Your task to perform on an android device: open sync settings in chrome Image 0: 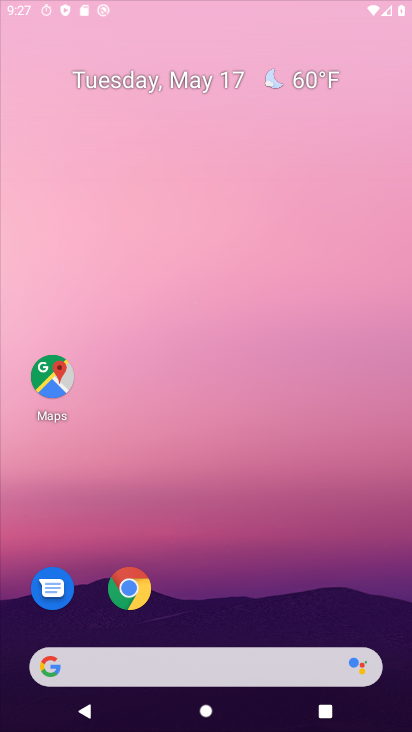
Step 0: drag from (287, 701) to (218, 217)
Your task to perform on an android device: open sync settings in chrome Image 1: 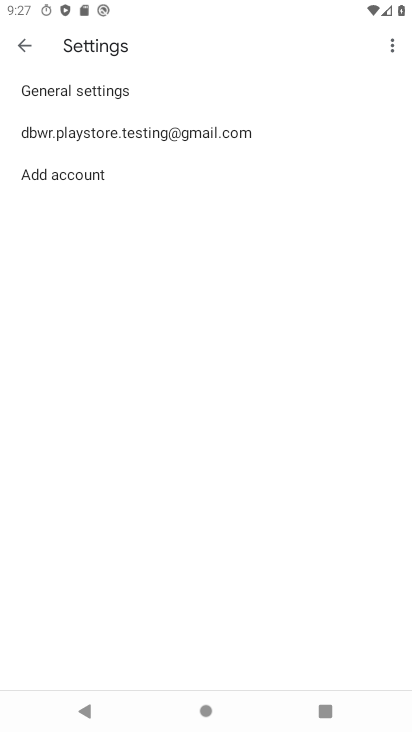
Step 1: click (17, 41)
Your task to perform on an android device: open sync settings in chrome Image 2: 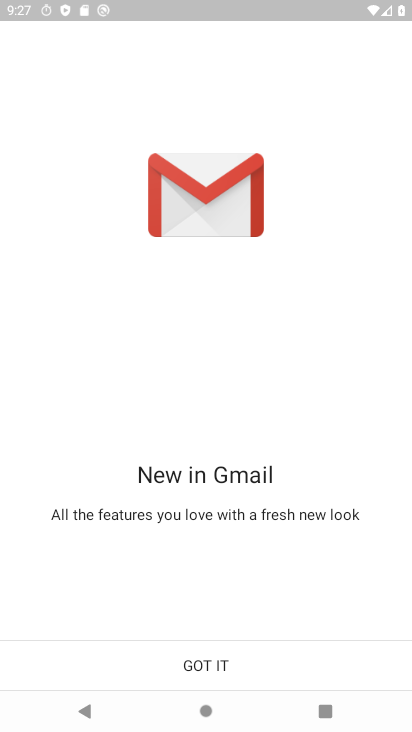
Step 2: press home button
Your task to perform on an android device: open sync settings in chrome Image 3: 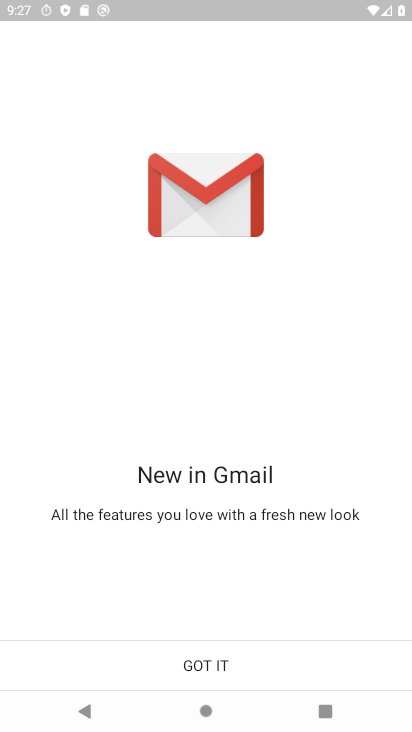
Step 3: press home button
Your task to perform on an android device: open sync settings in chrome Image 4: 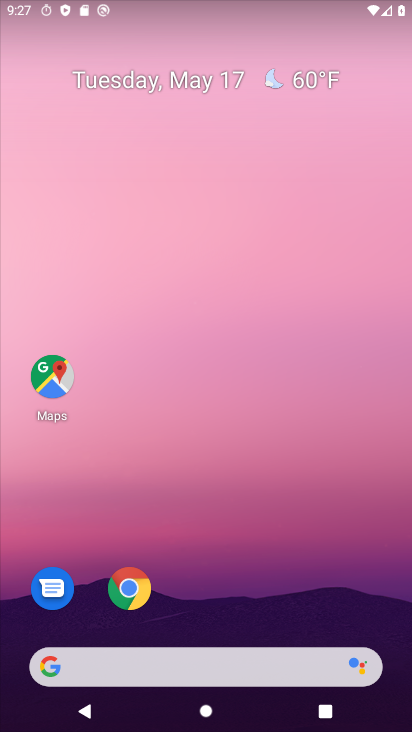
Step 4: drag from (258, 656) to (213, 115)
Your task to perform on an android device: open sync settings in chrome Image 5: 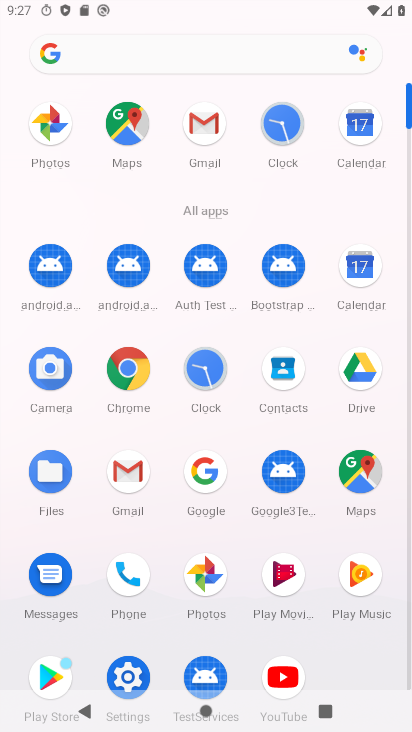
Step 5: click (130, 367)
Your task to perform on an android device: open sync settings in chrome Image 6: 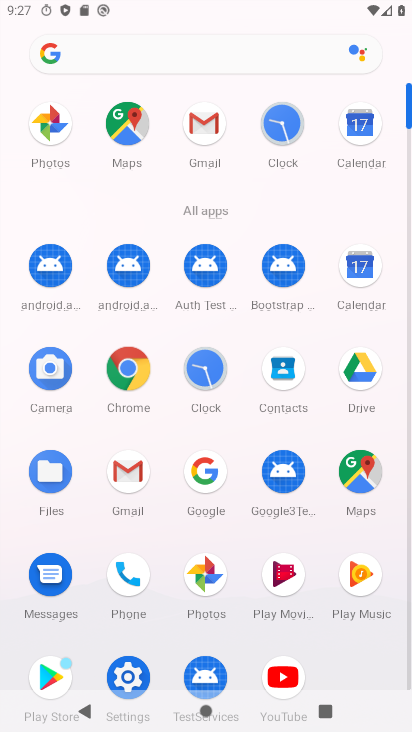
Step 6: click (131, 363)
Your task to perform on an android device: open sync settings in chrome Image 7: 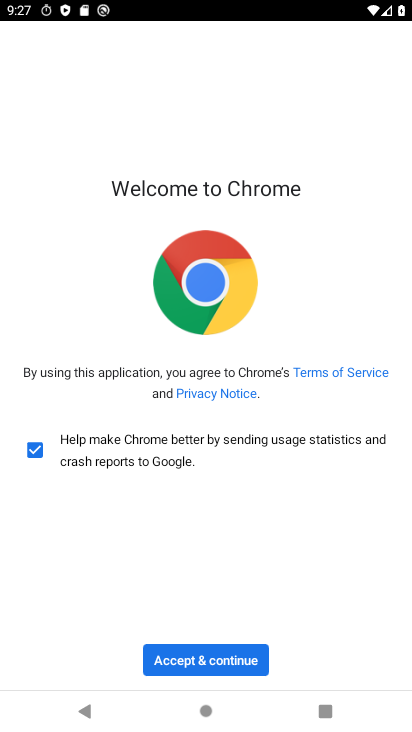
Step 7: click (193, 660)
Your task to perform on an android device: open sync settings in chrome Image 8: 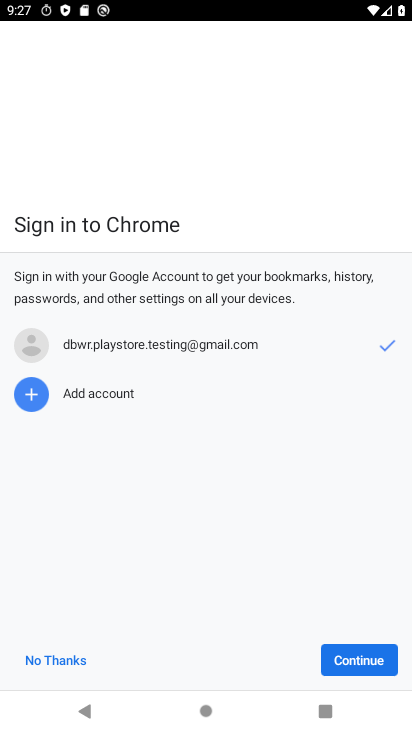
Step 8: click (374, 655)
Your task to perform on an android device: open sync settings in chrome Image 9: 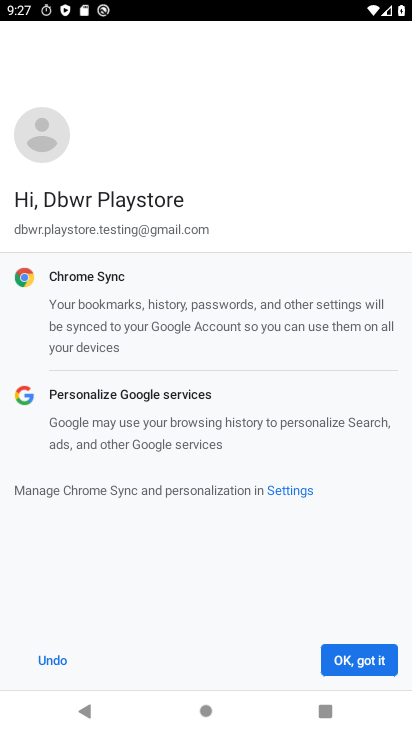
Step 9: click (363, 652)
Your task to perform on an android device: open sync settings in chrome Image 10: 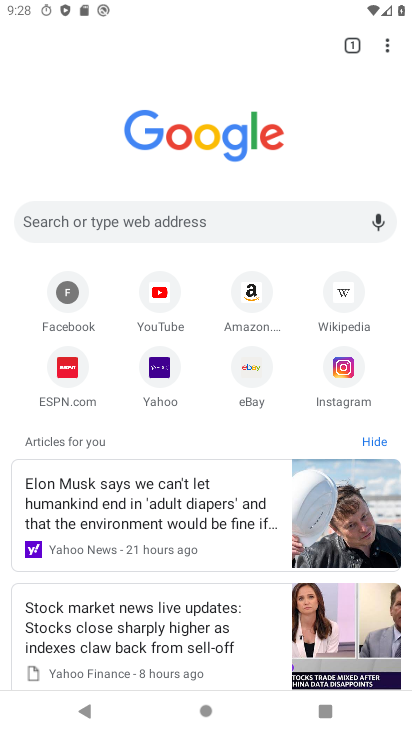
Step 10: drag from (384, 56) to (313, 426)
Your task to perform on an android device: open sync settings in chrome Image 11: 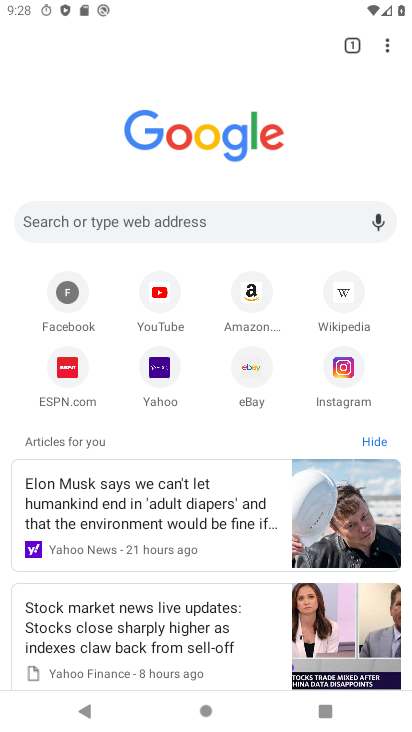
Step 11: click (392, 45)
Your task to perform on an android device: open sync settings in chrome Image 12: 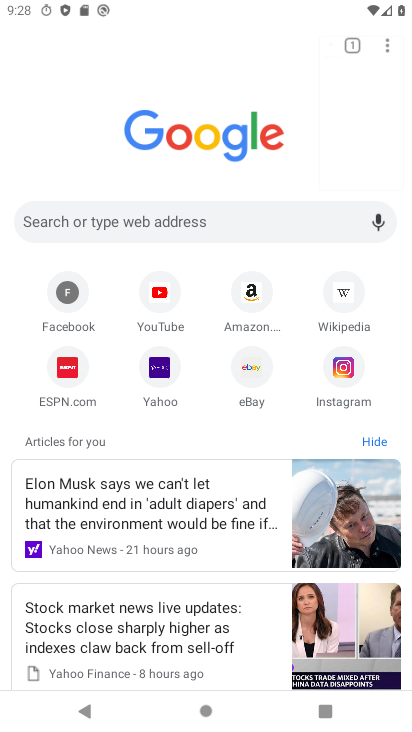
Step 12: click (396, 42)
Your task to perform on an android device: open sync settings in chrome Image 13: 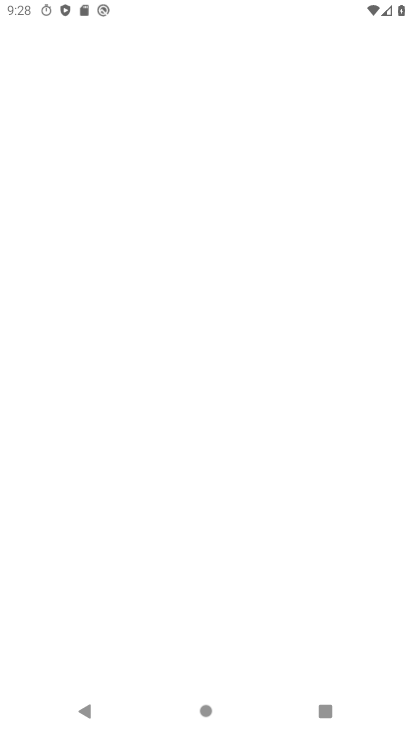
Step 13: drag from (381, 44) to (19, 50)
Your task to perform on an android device: open sync settings in chrome Image 14: 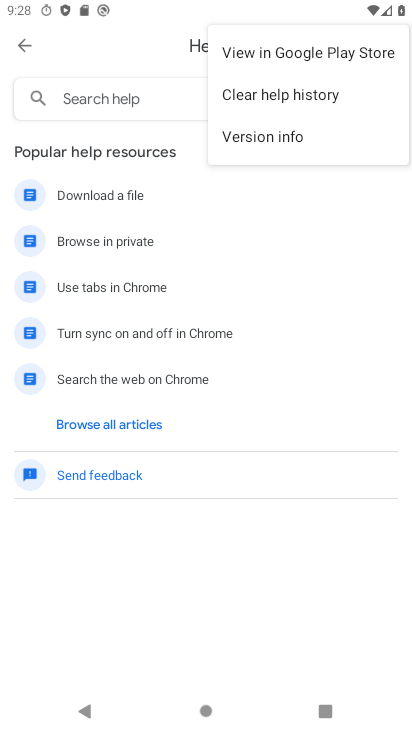
Step 14: click (23, 46)
Your task to perform on an android device: open sync settings in chrome Image 15: 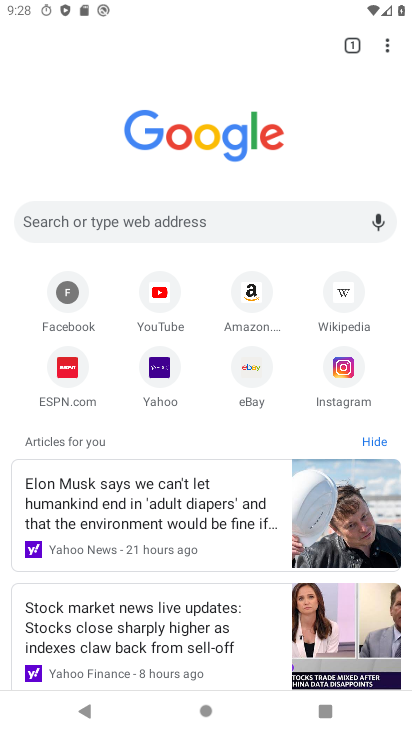
Step 15: drag from (390, 46) to (225, 382)
Your task to perform on an android device: open sync settings in chrome Image 16: 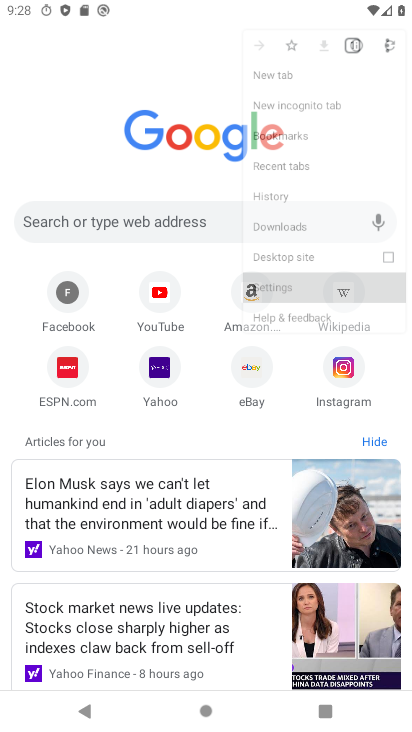
Step 16: click (225, 383)
Your task to perform on an android device: open sync settings in chrome Image 17: 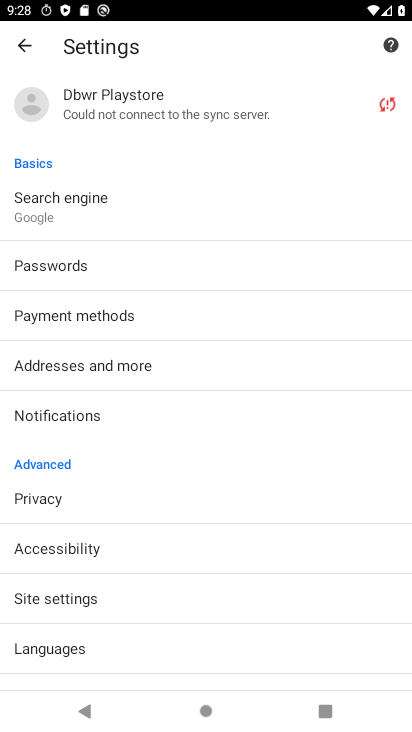
Step 17: click (51, 582)
Your task to perform on an android device: open sync settings in chrome Image 18: 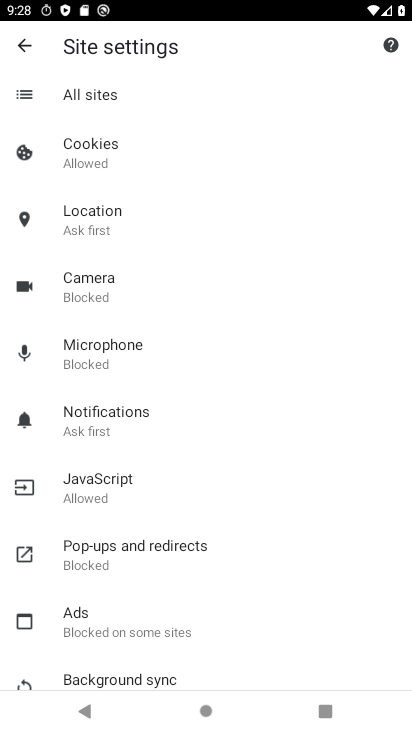
Step 18: click (86, 683)
Your task to perform on an android device: open sync settings in chrome Image 19: 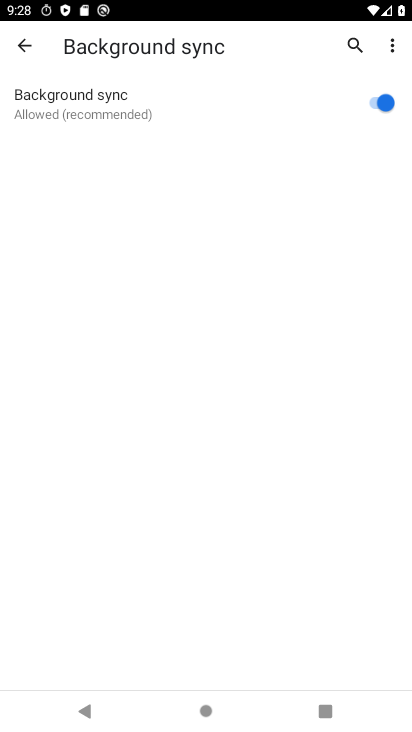
Step 19: drag from (178, 602) to (166, 152)
Your task to perform on an android device: open sync settings in chrome Image 20: 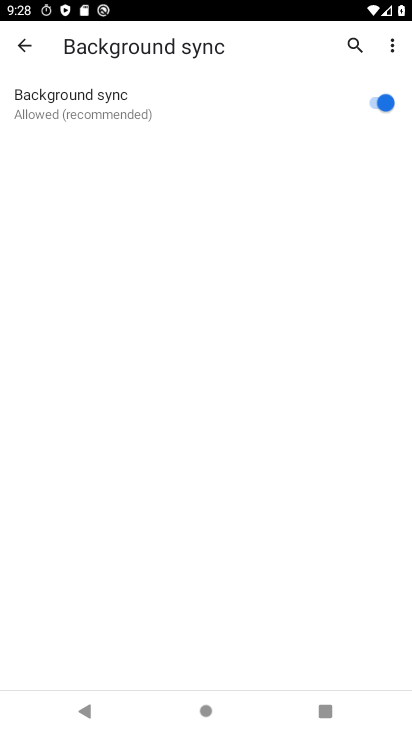
Step 20: click (107, 667)
Your task to perform on an android device: open sync settings in chrome Image 21: 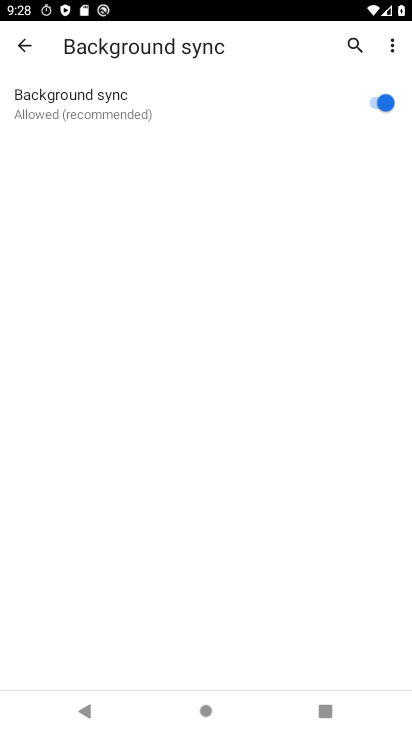
Step 21: click (127, 673)
Your task to perform on an android device: open sync settings in chrome Image 22: 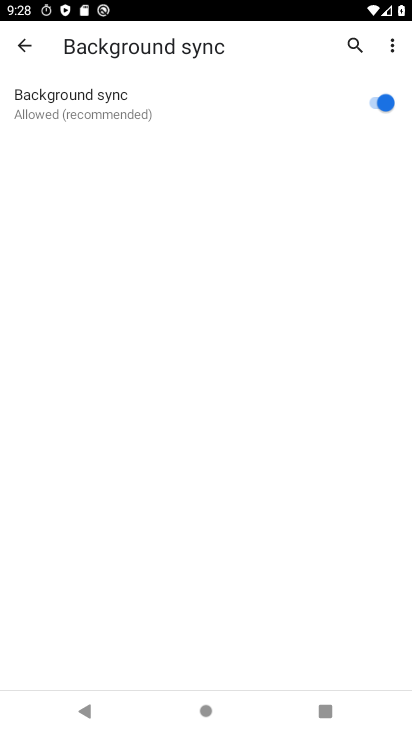
Step 22: click (135, 652)
Your task to perform on an android device: open sync settings in chrome Image 23: 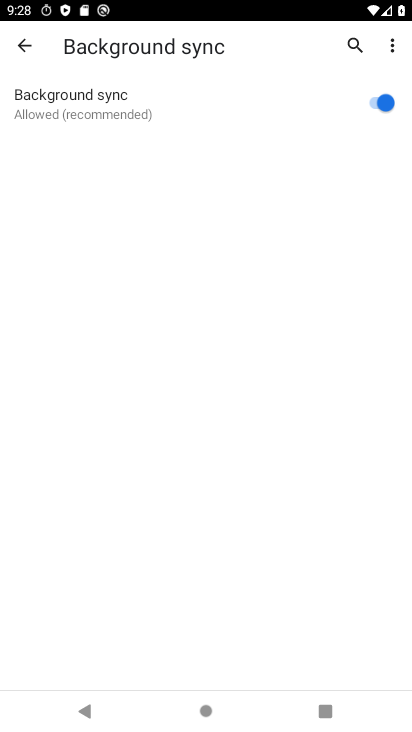
Step 23: drag from (224, 461) to (165, 112)
Your task to perform on an android device: open sync settings in chrome Image 24: 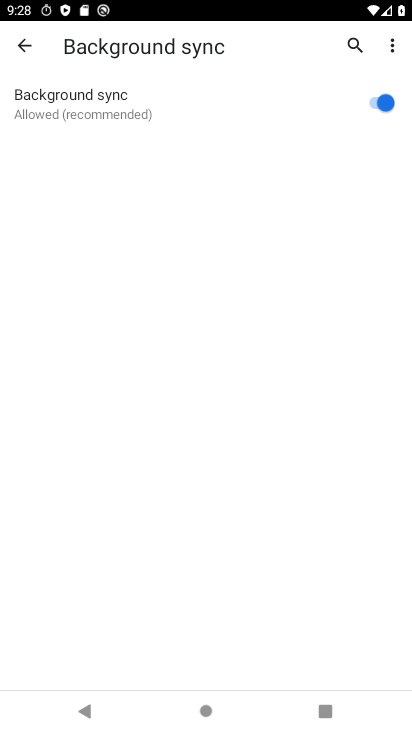
Step 24: drag from (239, 416) to (240, 127)
Your task to perform on an android device: open sync settings in chrome Image 25: 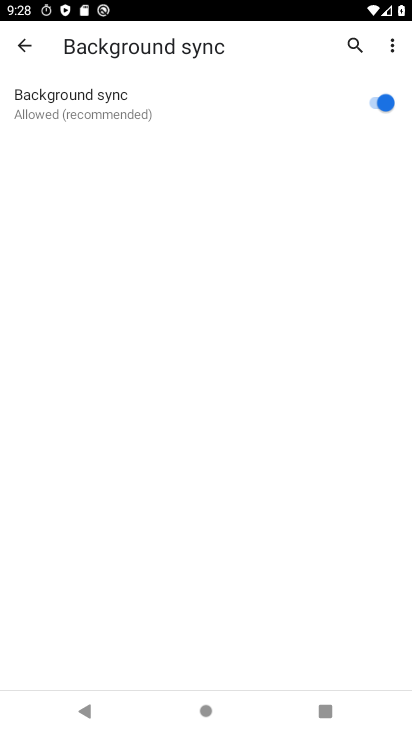
Step 25: drag from (153, 599) to (21, 125)
Your task to perform on an android device: open sync settings in chrome Image 26: 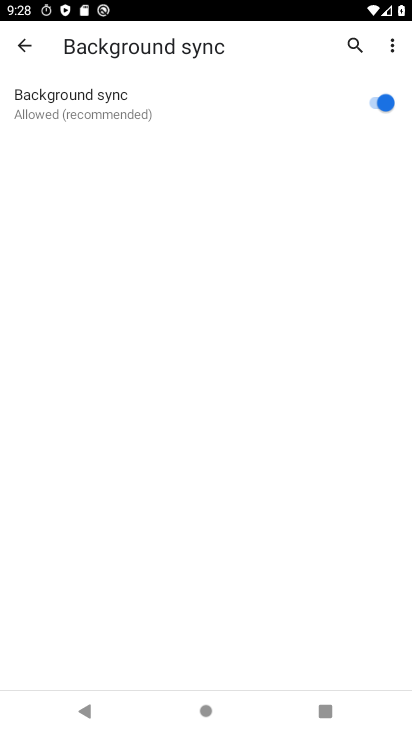
Step 26: click (117, 673)
Your task to perform on an android device: open sync settings in chrome Image 27: 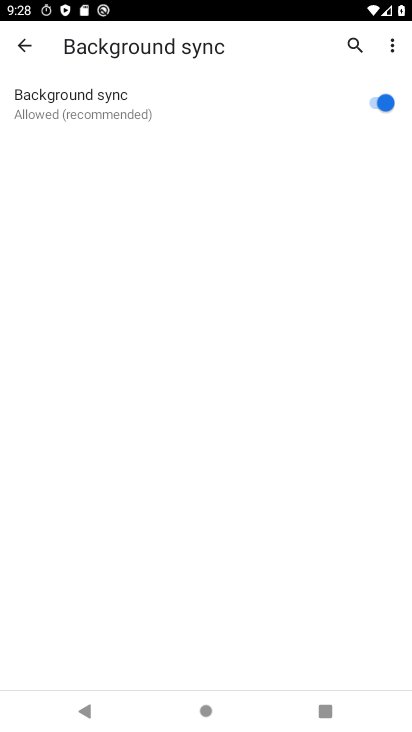
Step 27: task complete